Your task to perform on an android device: create a new album in the google photos Image 0: 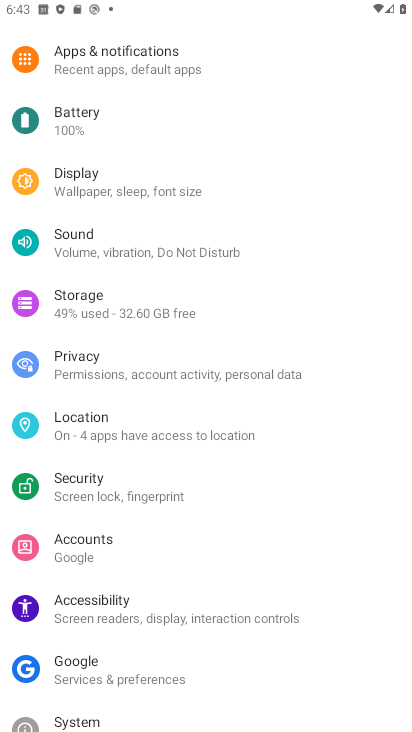
Step 0: press home button
Your task to perform on an android device: create a new album in the google photos Image 1: 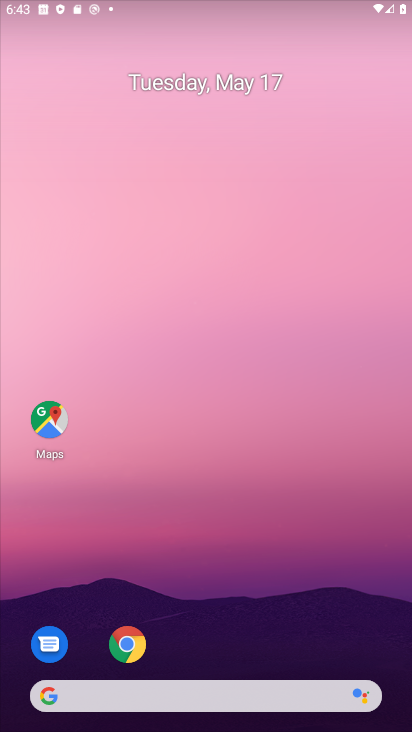
Step 1: drag from (354, 610) to (246, 0)
Your task to perform on an android device: create a new album in the google photos Image 2: 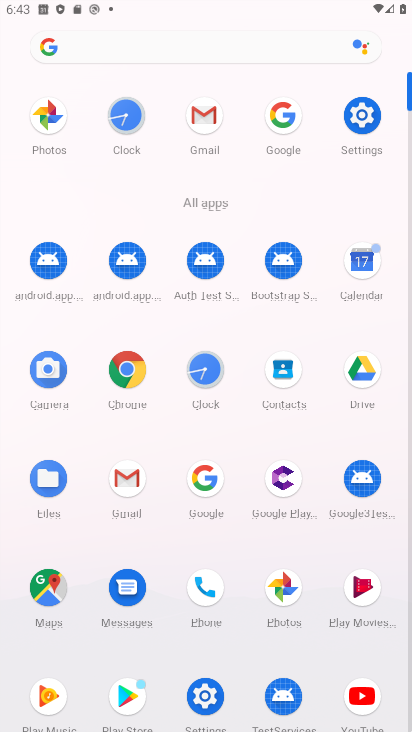
Step 2: click (279, 593)
Your task to perform on an android device: create a new album in the google photos Image 3: 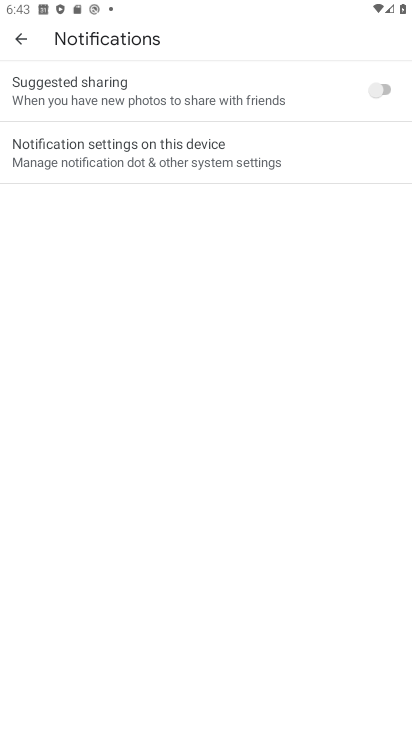
Step 3: press back button
Your task to perform on an android device: create a new album in the google photos Image 4: 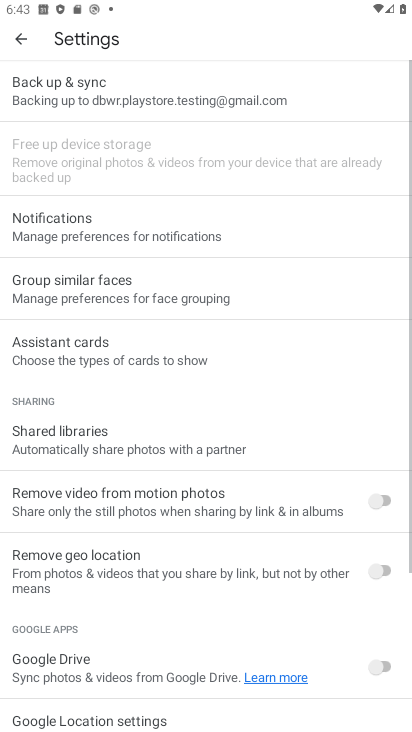
Step 4: press back button
Your task to perform on an android device: create a new album in the google photos Image 5: 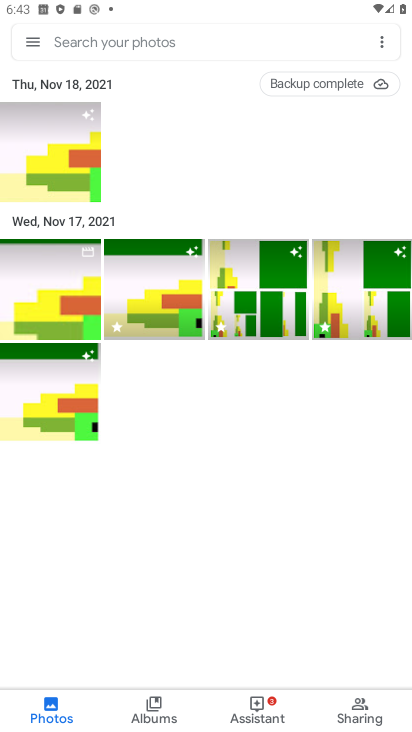
Step 5: click (52, 144)
Your task to perform on an android device: create a new album in the google photos Image 6: 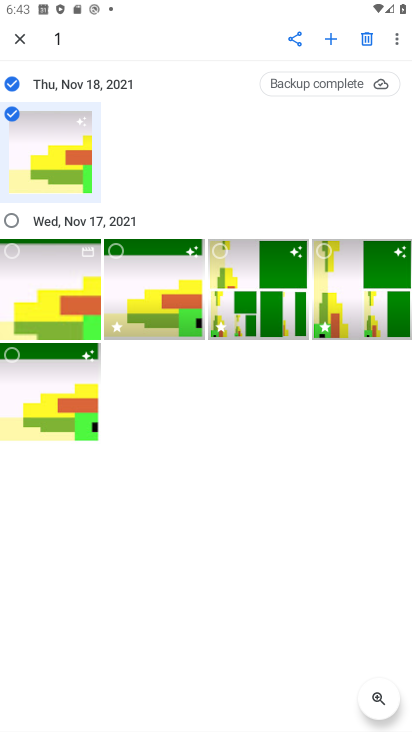
Step 6: click (332, 36)
Your task to perform on an android device: create a new album in the google photos Image 7: 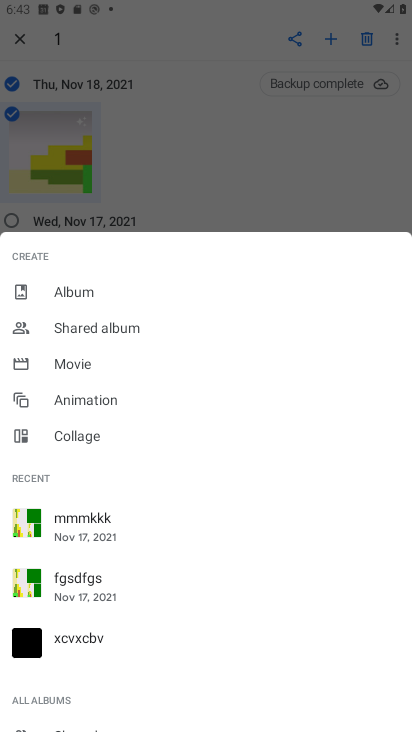
Step 7: click (84, 288)
Your task to perform on an android device: create a new album in the google photos Image 8: 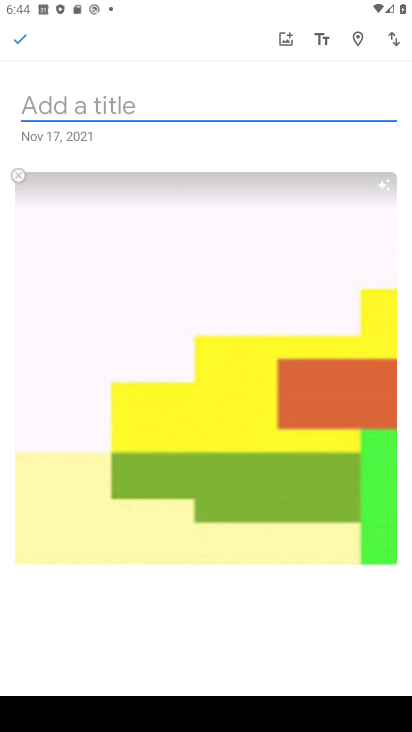
Step 8: type "VC"
Your task to perform on an android device: create a new album in the google photos Image 9: 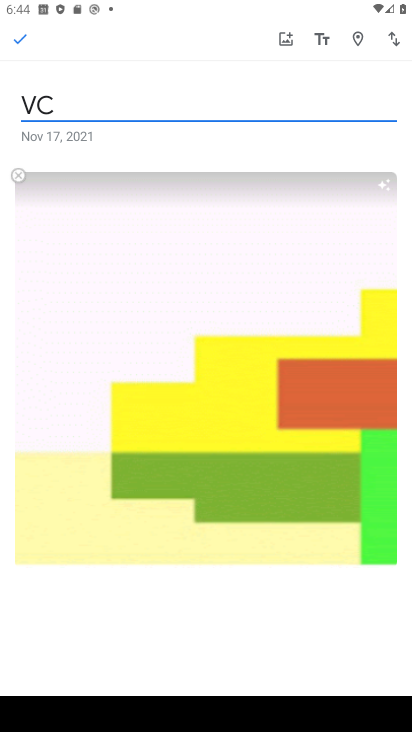
Step 9: click (24, 30)
Your task to perform on an android device: create a new album in the google photos Image 10: 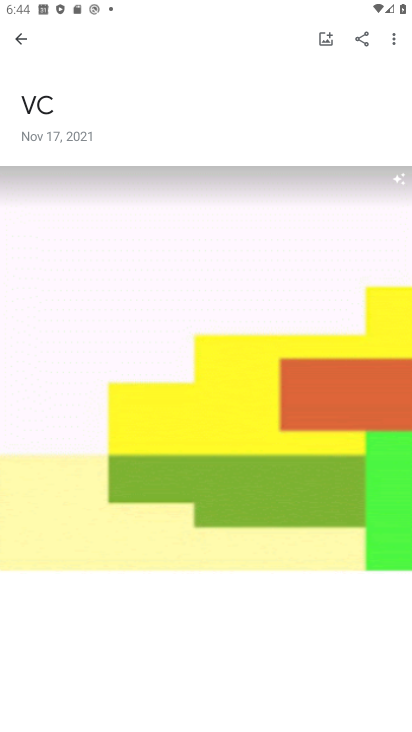
Step 10: task complete